Your task to perform on an android device: Open calendar and show me the fourth week of next month Image 0: 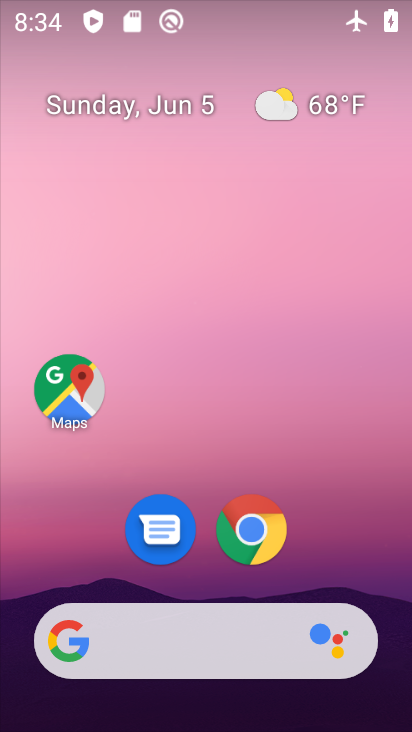
Step 0: drag from (260, 662) to (392, 57)
Your task to perform on an android device: Open calendar and show me the fourth week of next month Image 1: 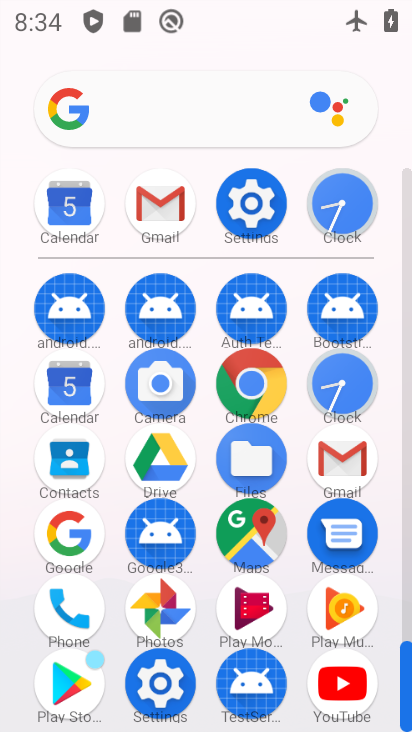
Step 1: click (90, 394)
Your task to perform on an android device: Open calendar and show me the fourth week of next month Image 2: 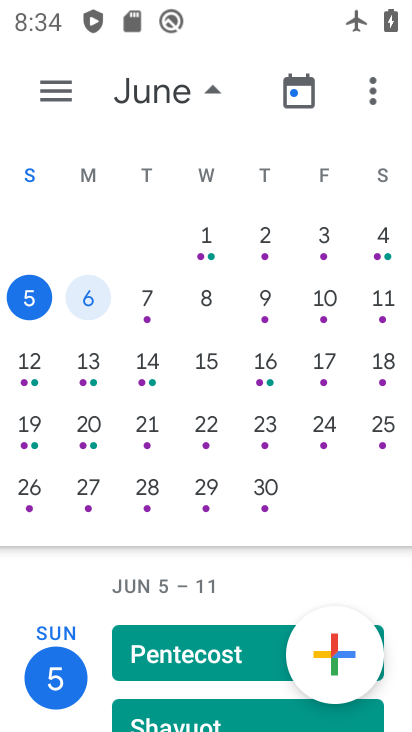
Step 2: click (154, 100)
Your task to perform on an android device: Open calendar and show me the fourth week of next month Image 3: 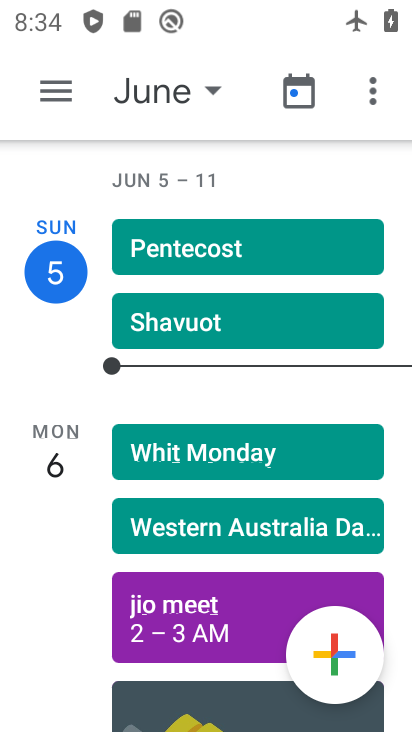
Step 3: click (193, 88)
Your task to perform on an android device: Open calendar and show me the fourth week of next month Image 4: 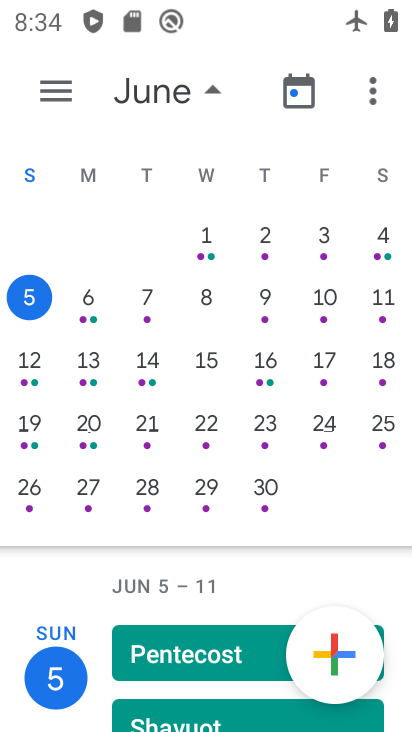
Step 4: drag from (242, 228) to (111, 371)
Your task to perform on an android device: Open calendar and show me the fourth week of next month Image 5: 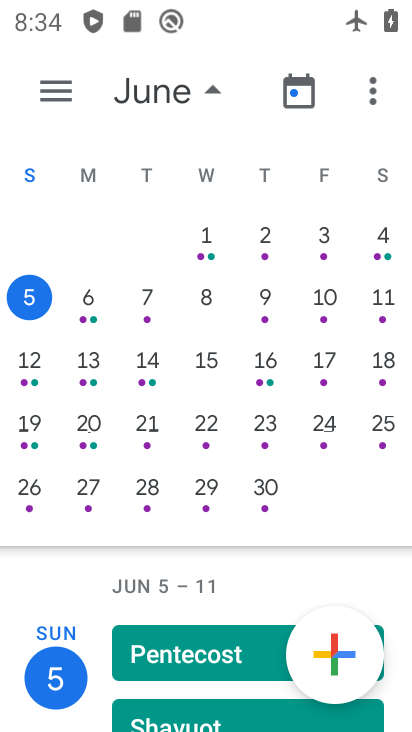
Step 5: drag from (323, 280) to (9, 403)
Your task to perform on an android device: Open calendar and show me the fourth week of next month Image 6: 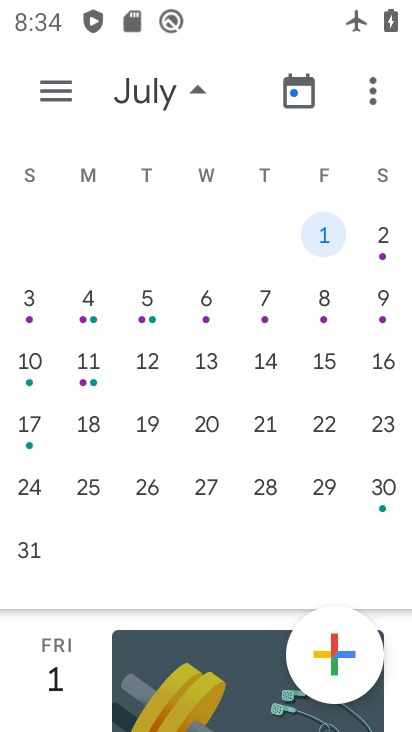
Step 6: click (35, 430)
Your task to perform on an android device: Open calendar and show me the fourth week of next month Image 7: 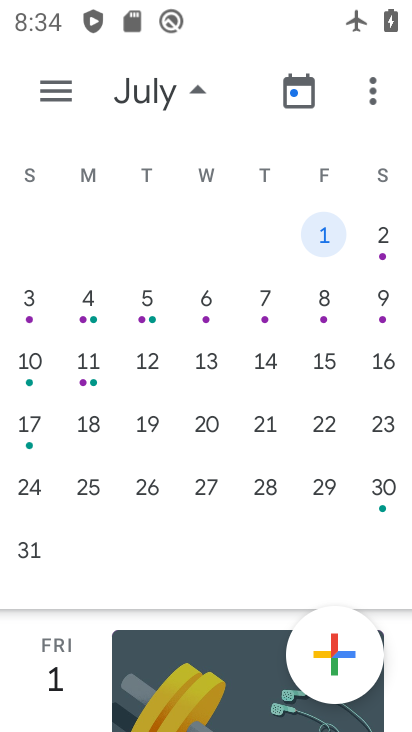
Step 7: click (28, 427)
Your task to perform on an android device: Open calendar and show me the fourth week of next month Image 8: 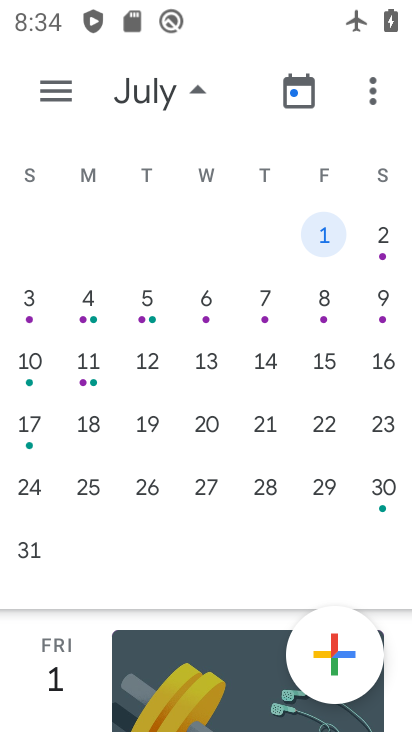
Step 8: click (28, 427)
Your task to perform on an android device: Open calendar and show me the fourth week of next month Image 9: 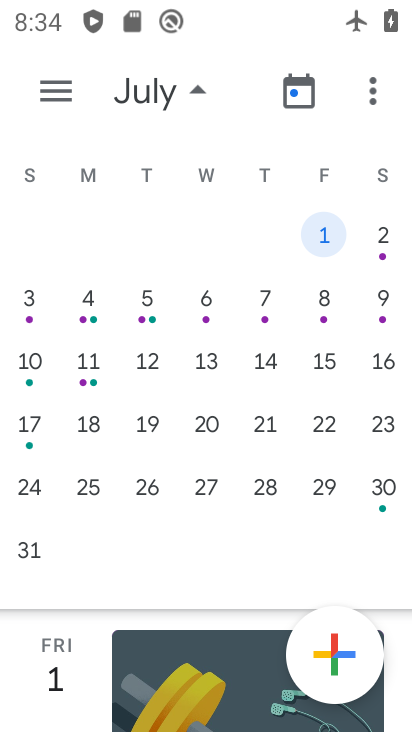
Step 9: click (44, 430)
Your task to perform on an android device: Open calendar and show me the fourth week of next month Image 10: 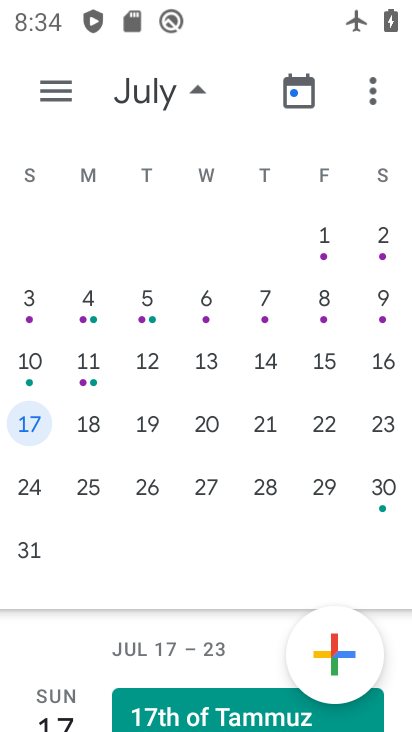
Step 10: task complete